Your task to perform on an android device: open chrome and create a bookmark for the current page Image 0: 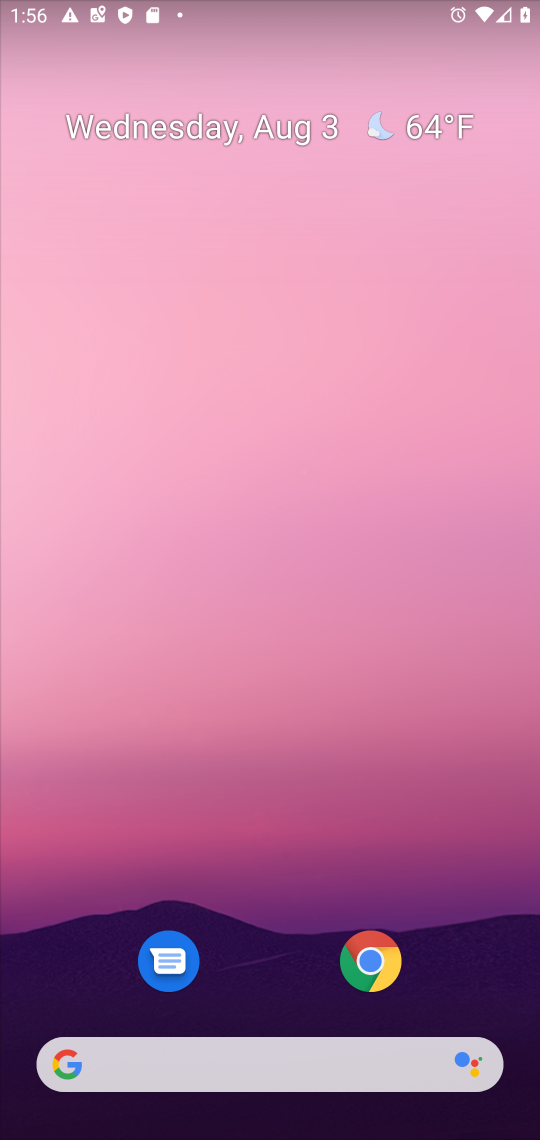
Step 0: click (376, 970)
Your task to perform on an android device: open chrome and create a bookmark for the current page Image 1: 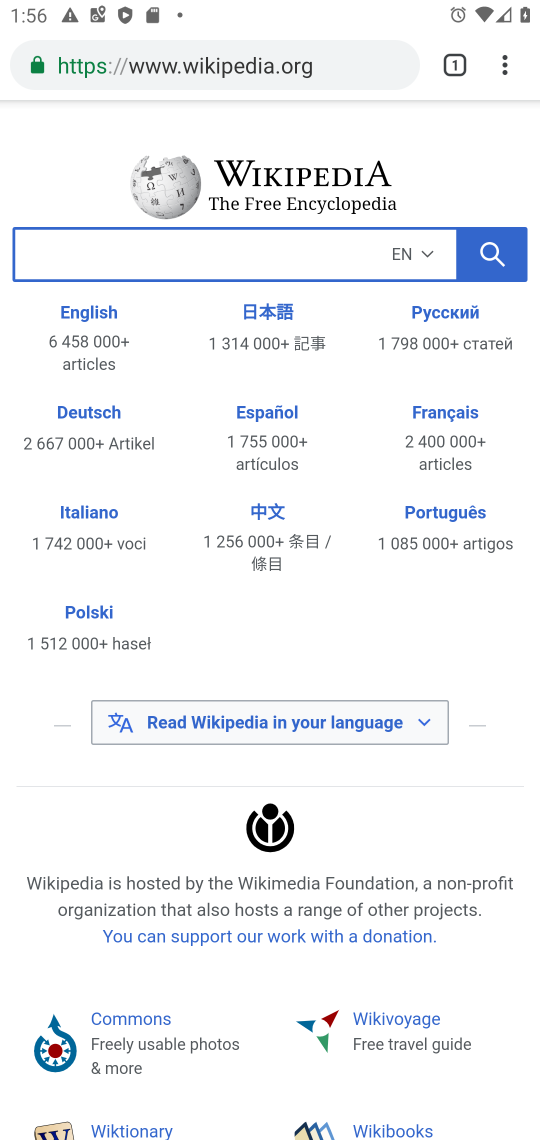
Step 1: click (502, 60)
Your task to perform on an android device: open chrome and create a bookmark for the current page Image 2: 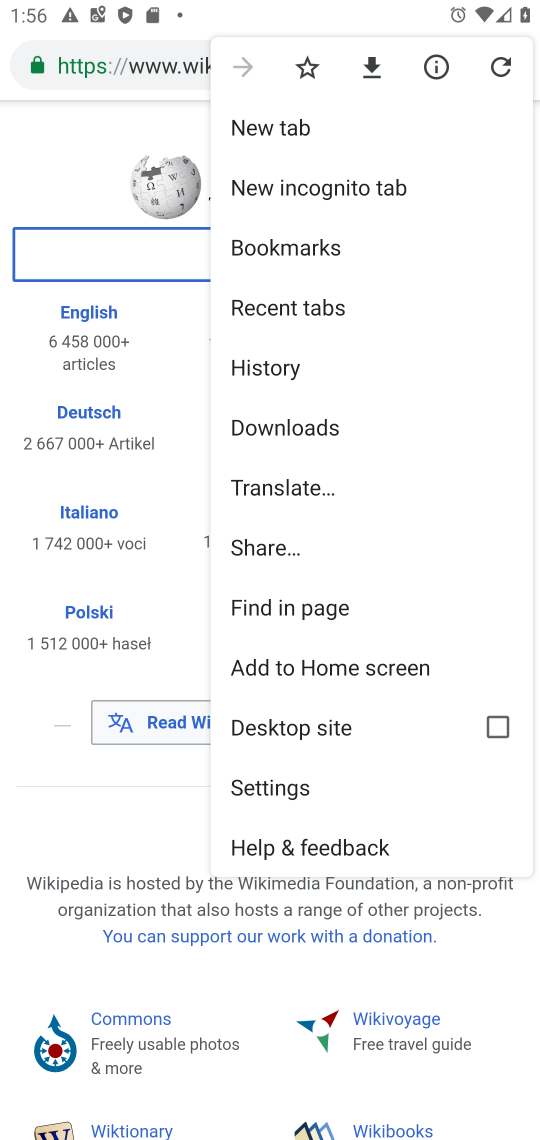
Step 2: click (307, 63)
Your task to perform on an android device: open chrome and create a bookmark for the current page Image 3: 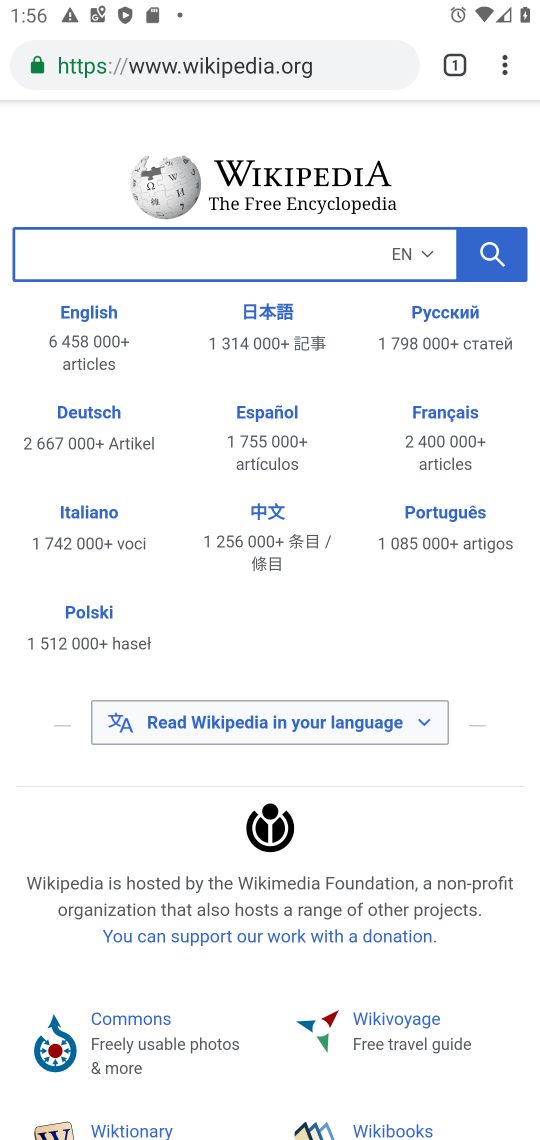
Step 3: task complete